Your task to perform on an android device: Open sound settings Image 0: 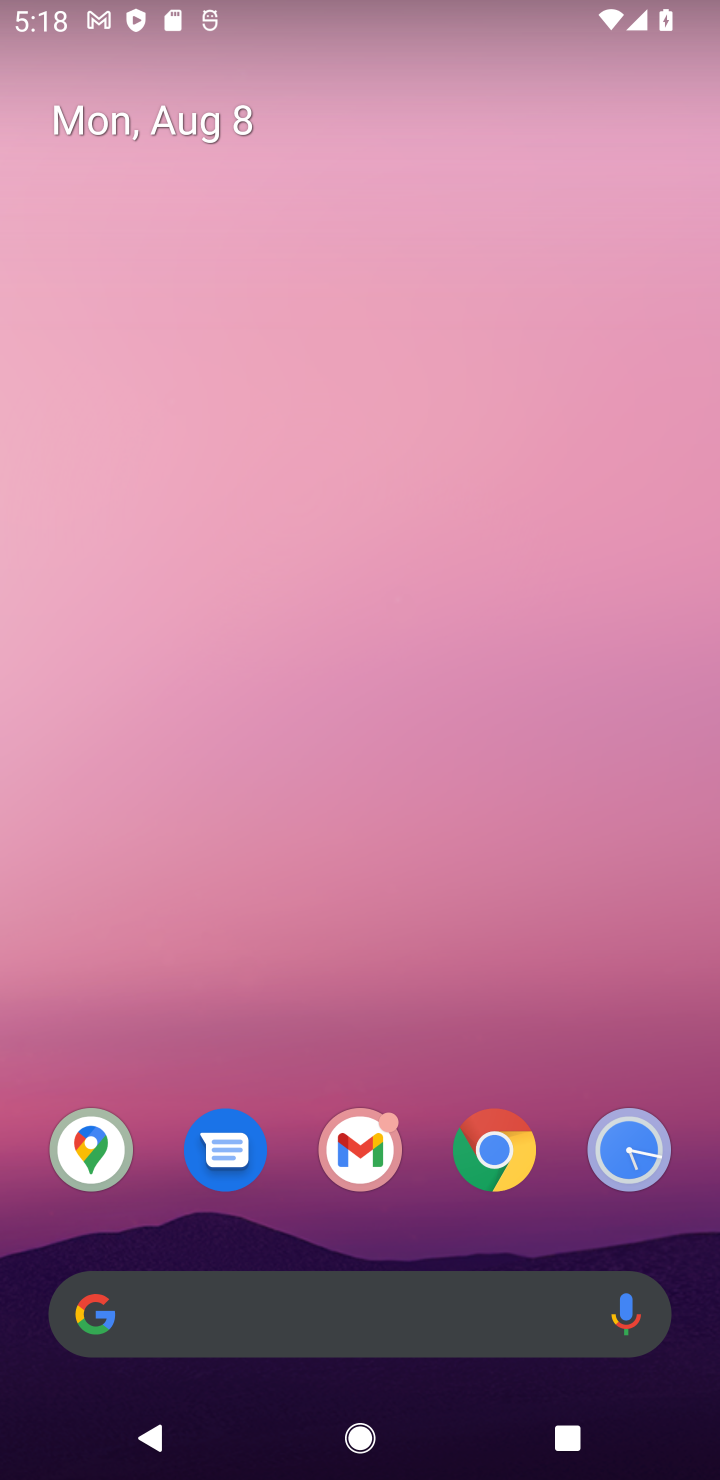
Step 0: drag from (564, 1190) to (415, 226)
Your task to perform on an android device: Open sound settings Image 1: 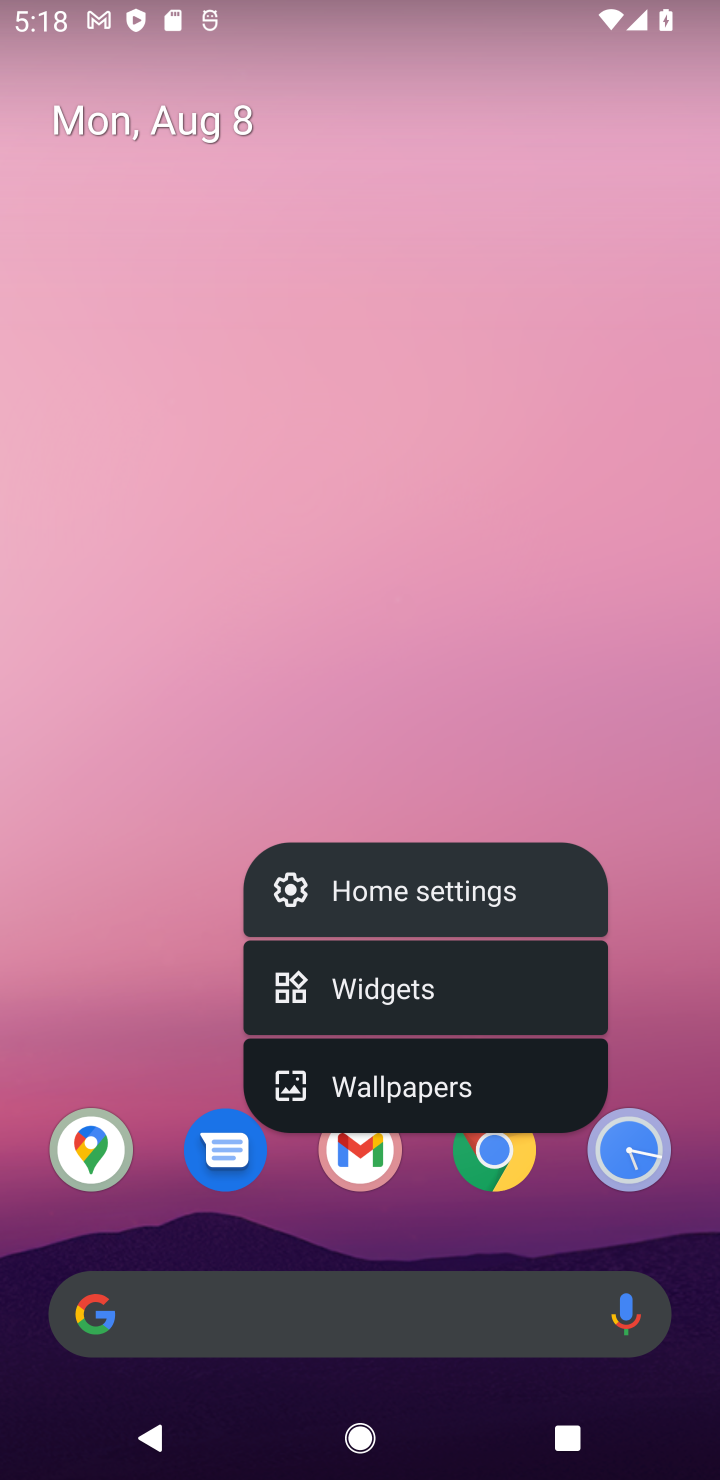
Step 1: click (411, 355)
Your task to perform on an android device: Open sound settings Image 2: 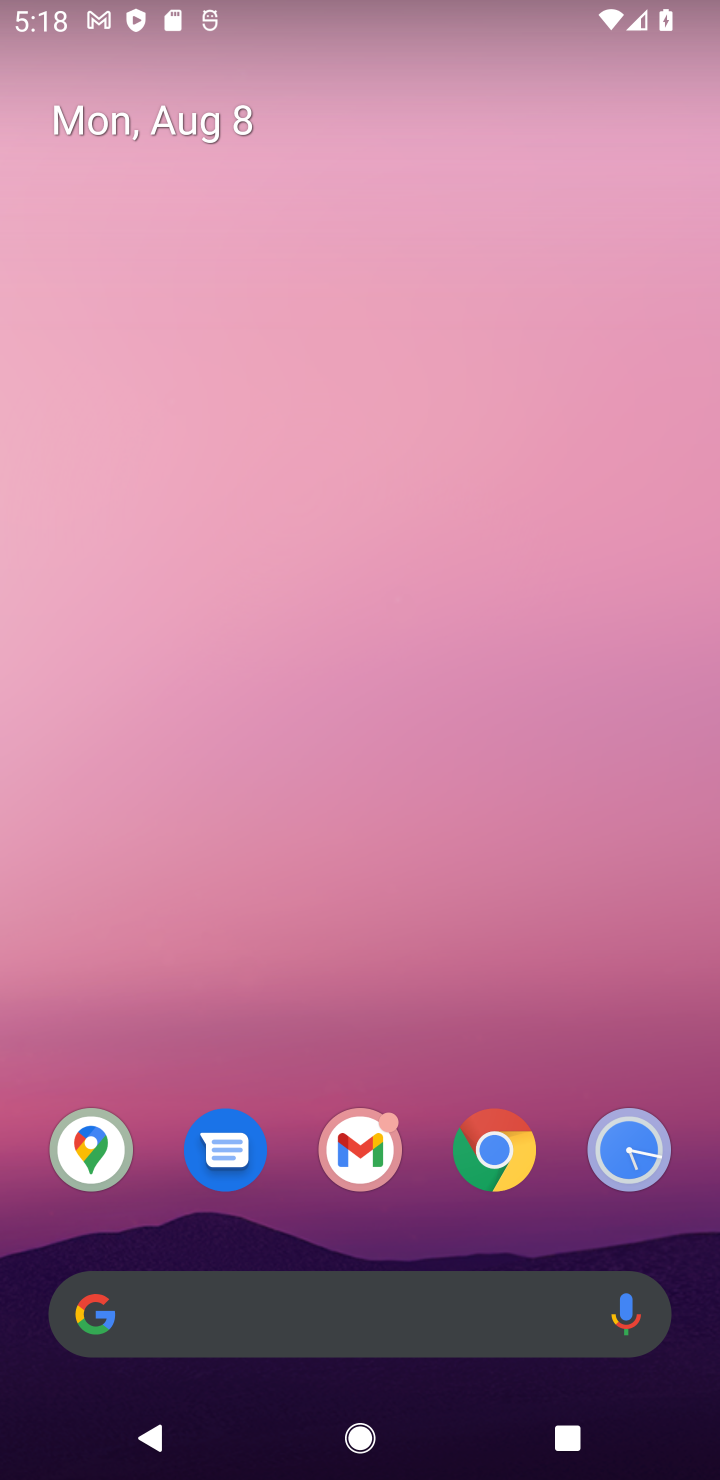
Step 2: drag from (422, 1247) to (340, 252)
Your task to perform on an android device: Open sound settings Image 3: 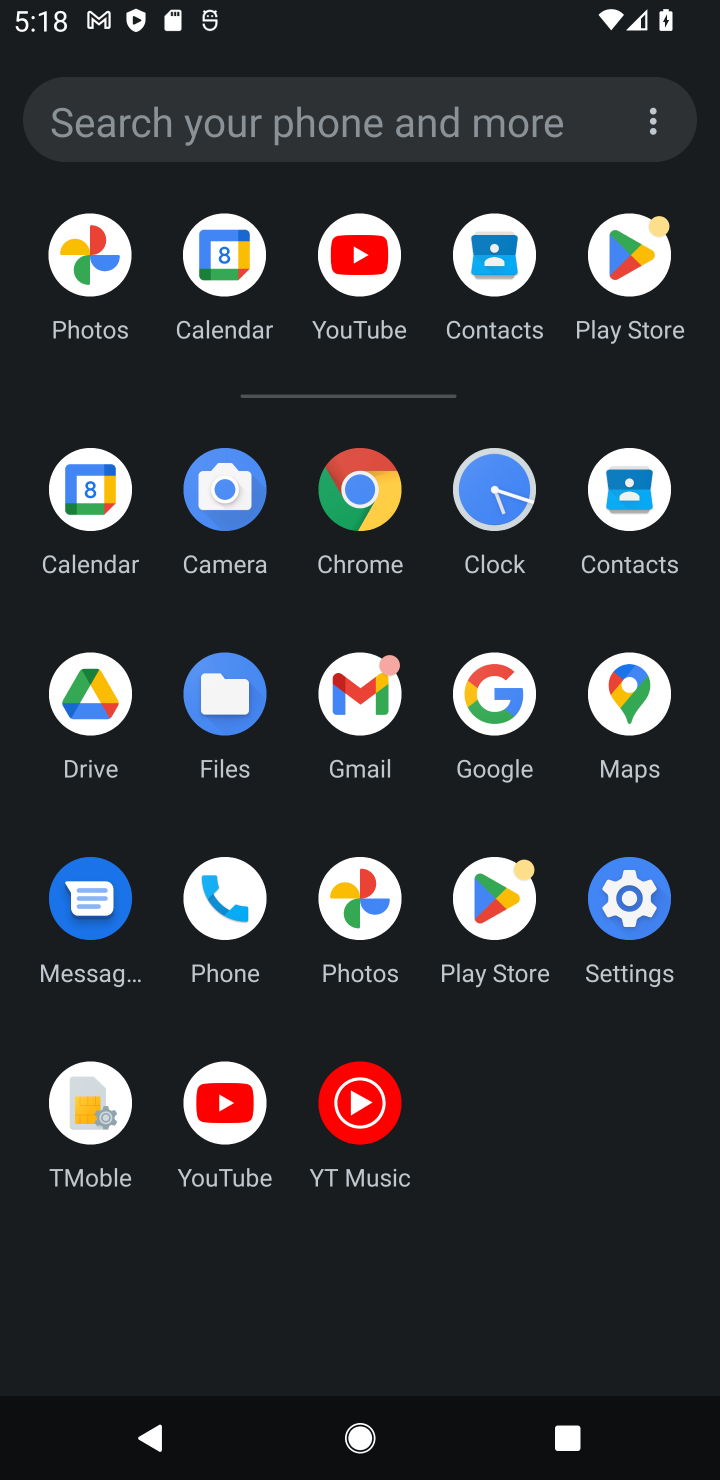
Step 3: click (636, 879)
Your task to perform on an android device: Open sound settings Image 4: 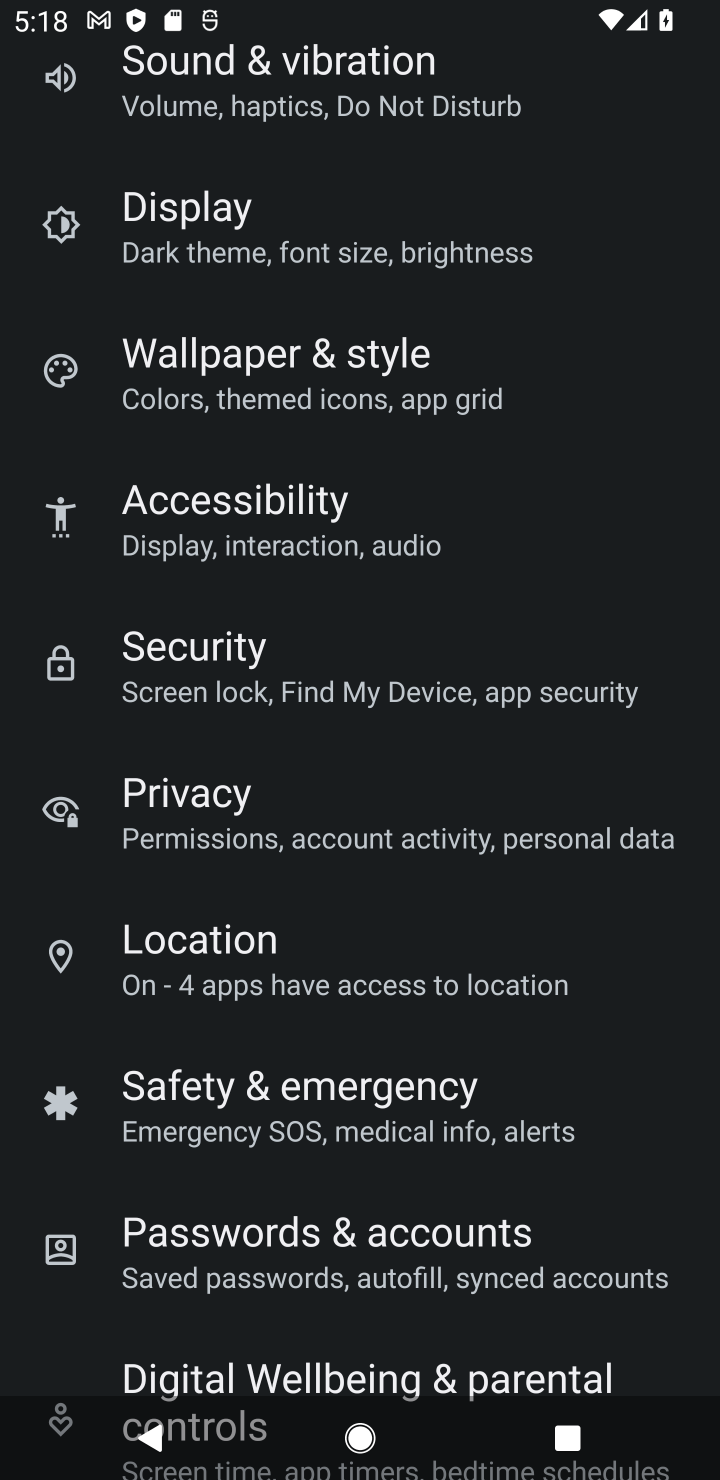
Step 4: click (441, 70)
Your task to perform on an android device: Open sound settings Image 5: 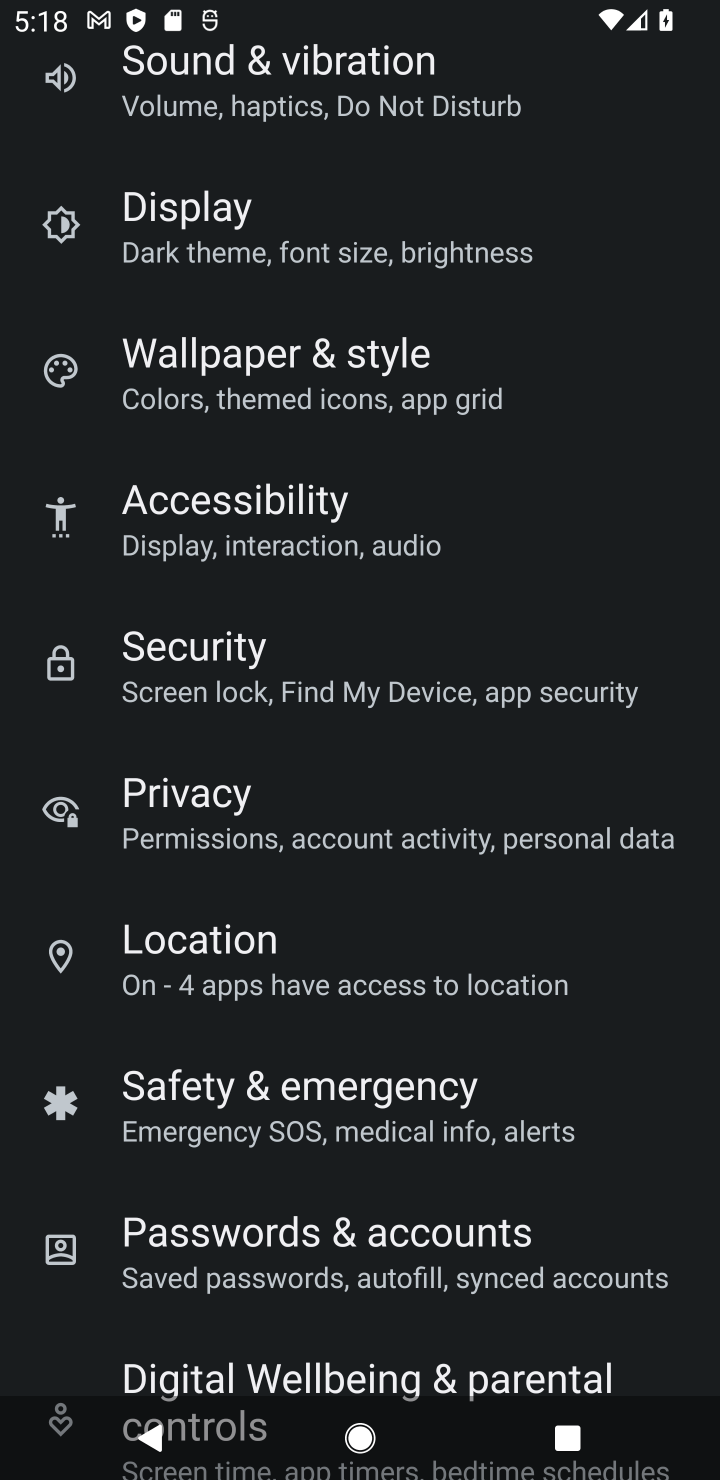
Step 5: task complete